Your task to perform on an android device: change the clock style Image 0: 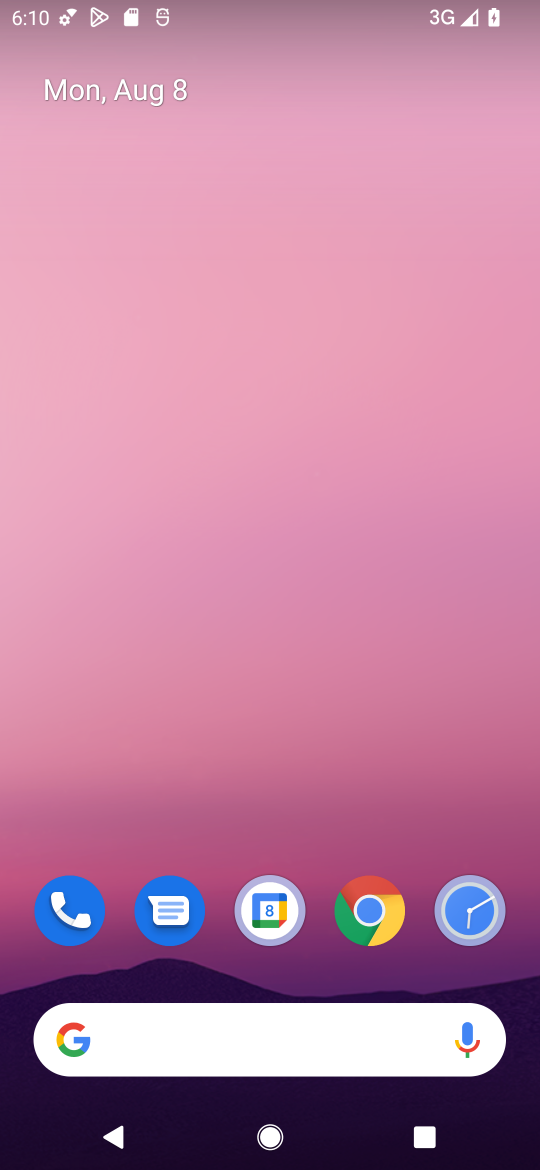
Step 0: click (491, 912)
Your task to perform on an android device: change the clock style Image 1: 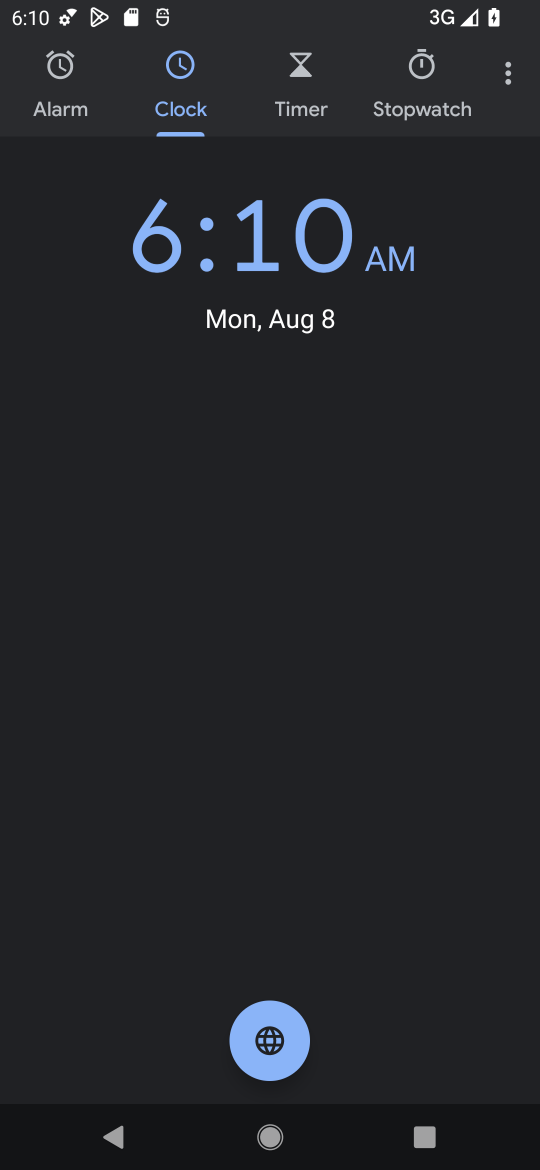
Step 1: click (504, 80)
Your task to perform on an android device: change the clock style Image 2: 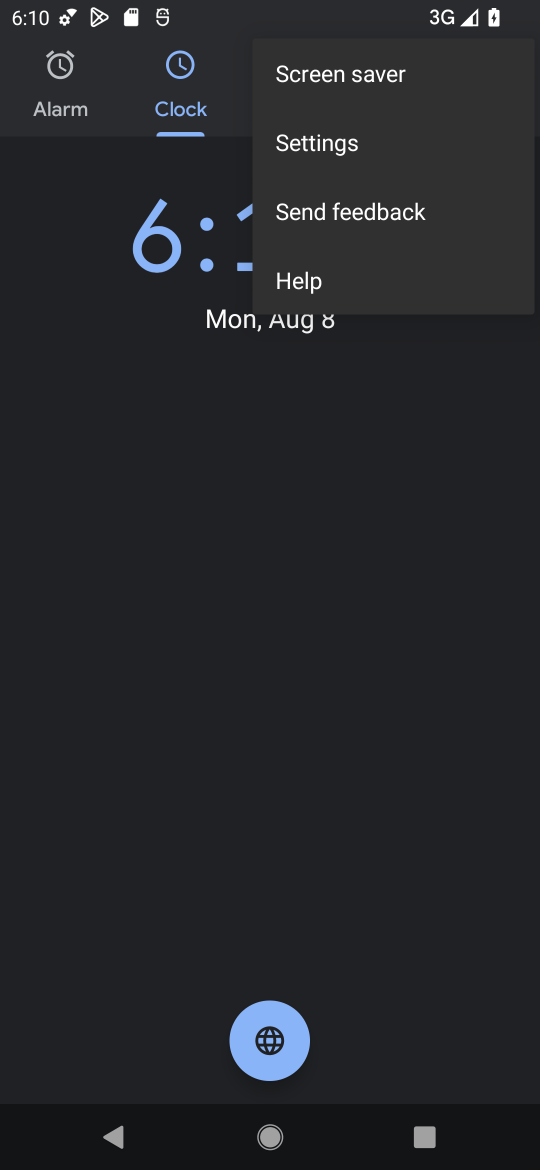
Step 2: click (296, 142)
Your task to perform on an android device: change the clock style Image 3: 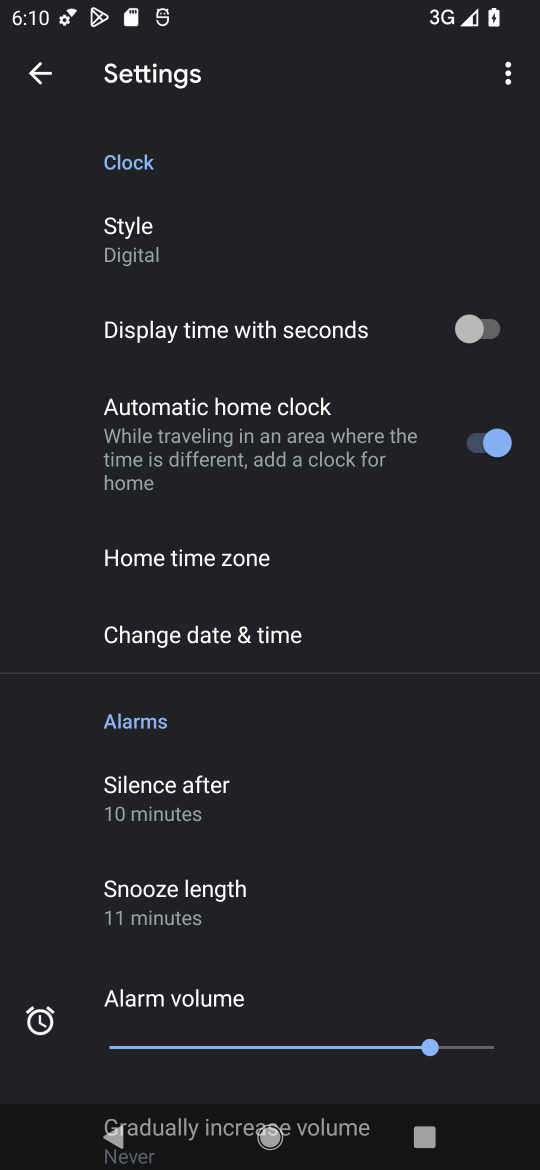
Step 3: click (125, 249)
Your task to perform on an android device: change the clock style Image 4: 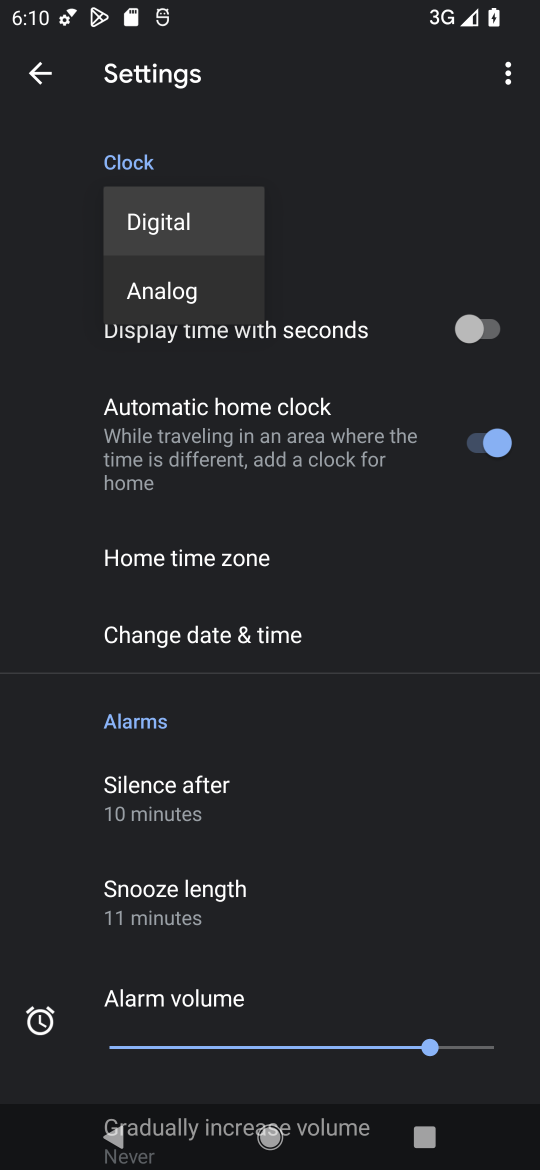
Step 4: click (172, 288)
Your task to perform on an android device: change the clock style Image 5: 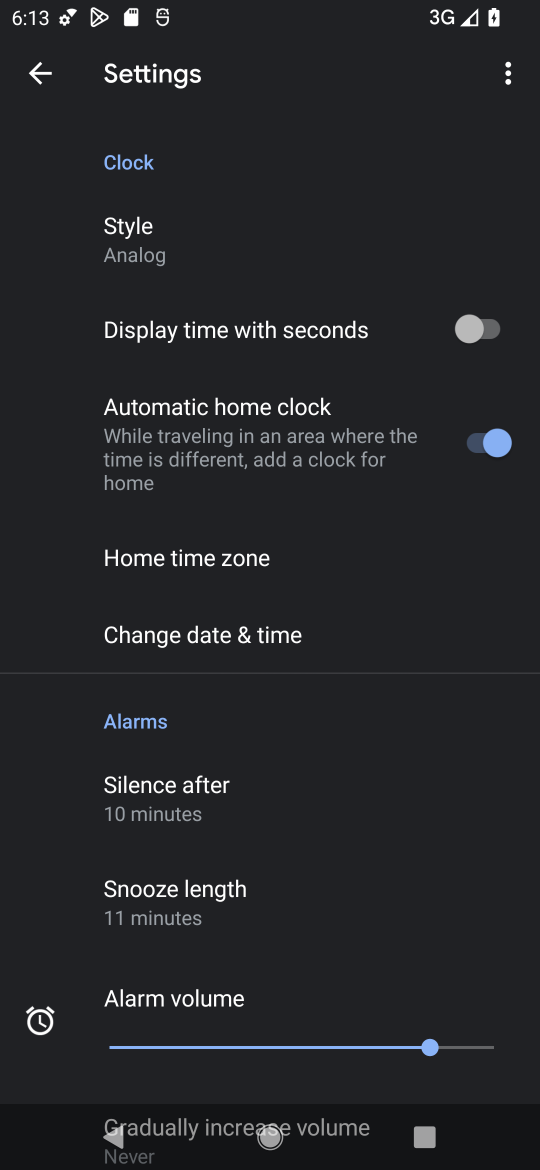
Step 5: task complete